Your task to perform on an android device: open device folders in google photos Image 0: 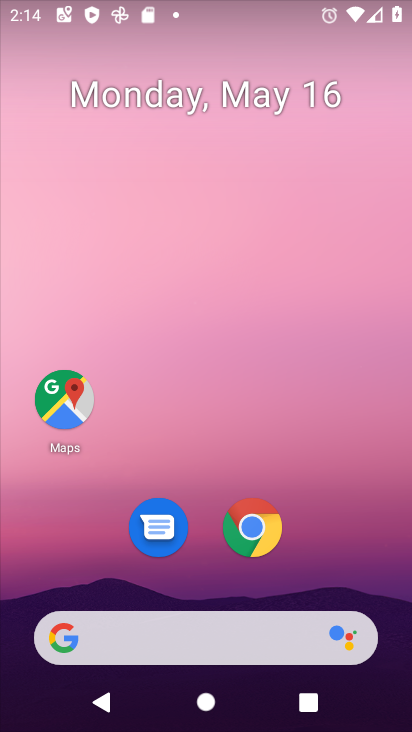
Step 0: drag from (383, 541) to (249, 71)
Your task to perform on an android device: open device folders in google photos Image 1: 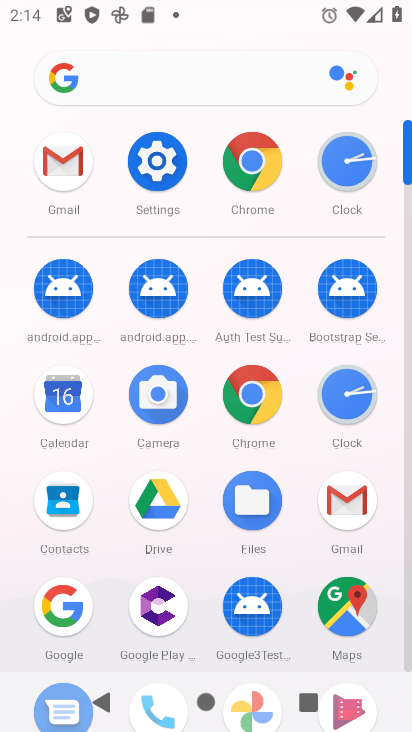
Step 1: click (404, 665)
Your task to perform on an android device: open device folders in google photos Image 2: 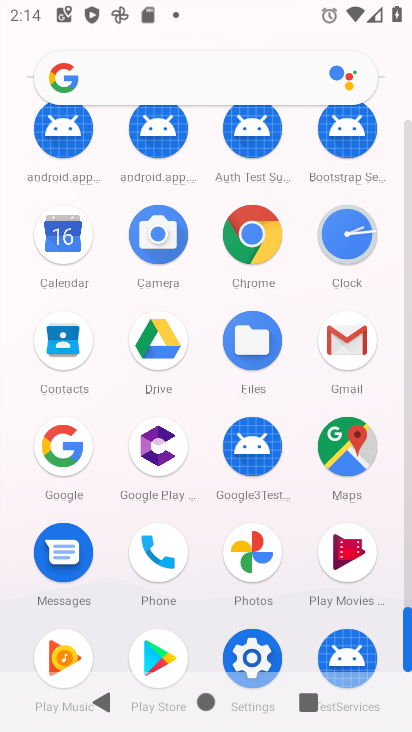
Step 2: click (259, 569)
Your task to perform on an android device: open device folders in google photos Image 3: 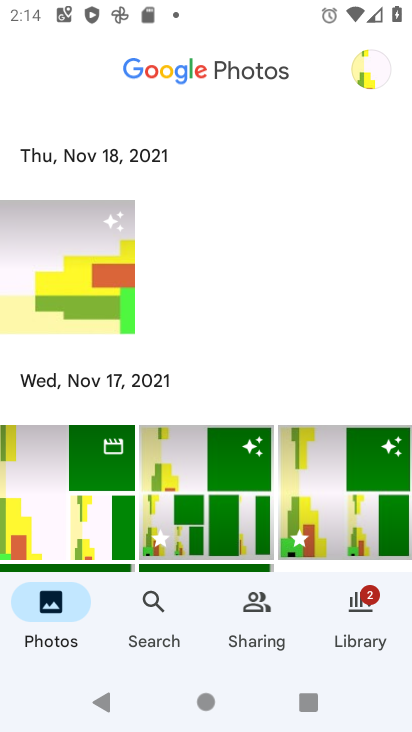
Step 3: click (387, 69)
Your task to perform on an android device: open device folders in google photos Image 4: 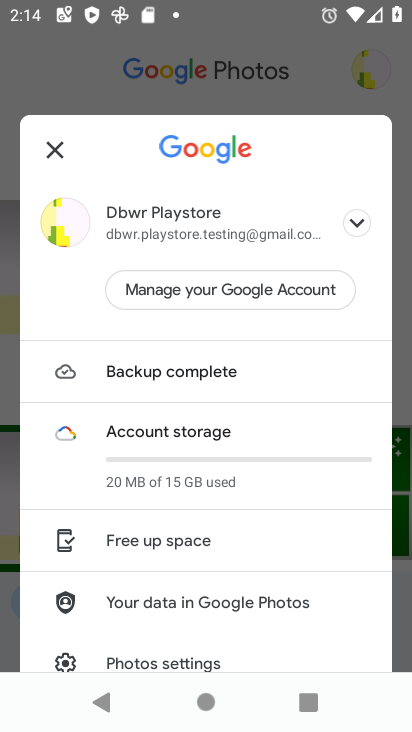
Step 4: click (61, 142)
Your task to perform on an android device: open device folders in google photos Image 5: 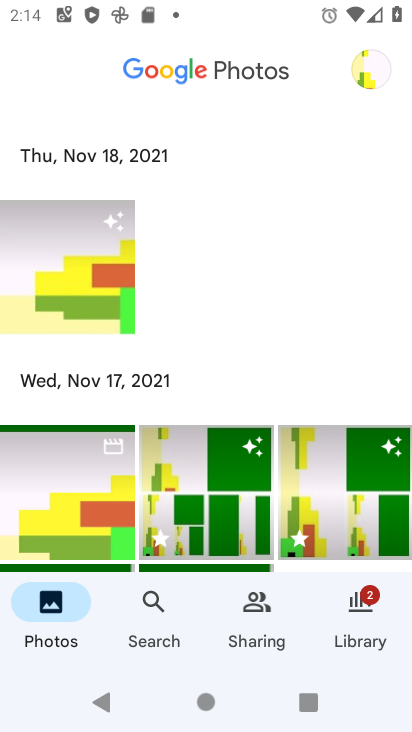
Step 5: click (378, 608)
Your task to perform on an android device: open device folders in google photos Image 6: 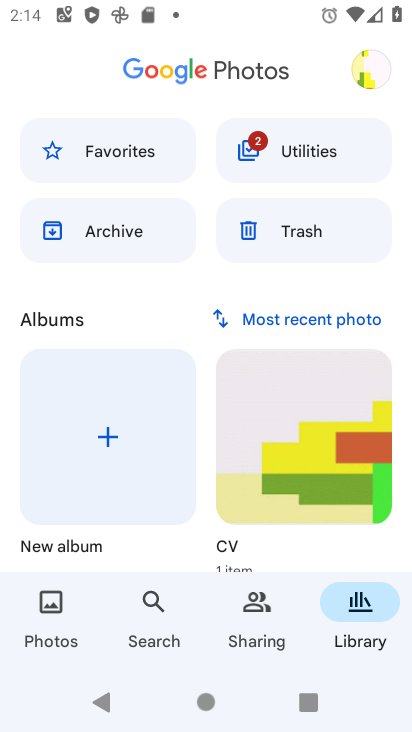
Step 6: click (368, 74)
Your task to perform on an android device: open device folders in google photos Image 7: 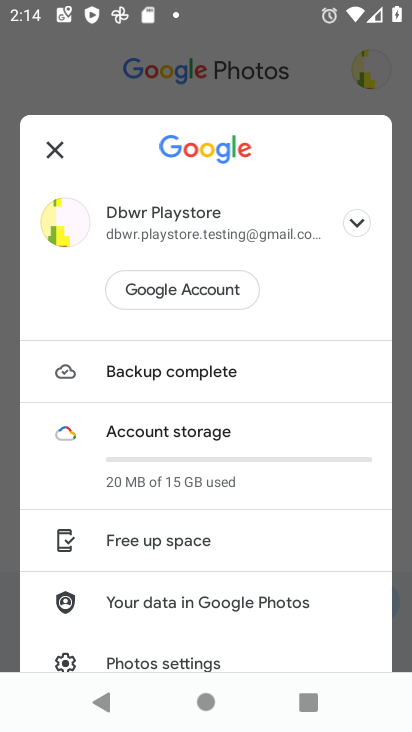
Step 7: click (224, 604)
Your task to perform on an android device: open device folders in google photos Image 8: 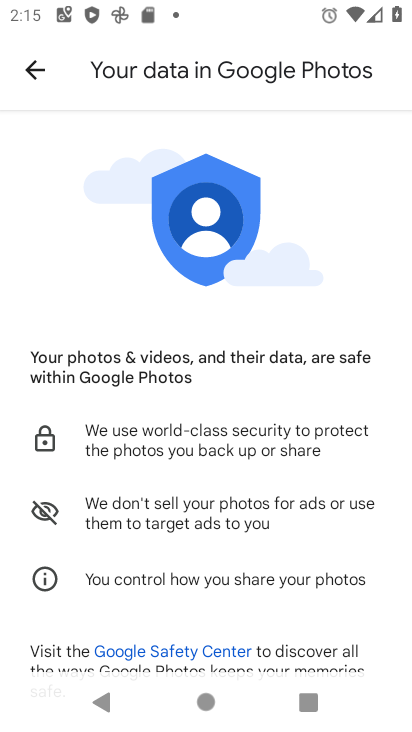
Step 8: click (35, 87)
Your task to perform on an android device: open device folders in google photos Image 9: 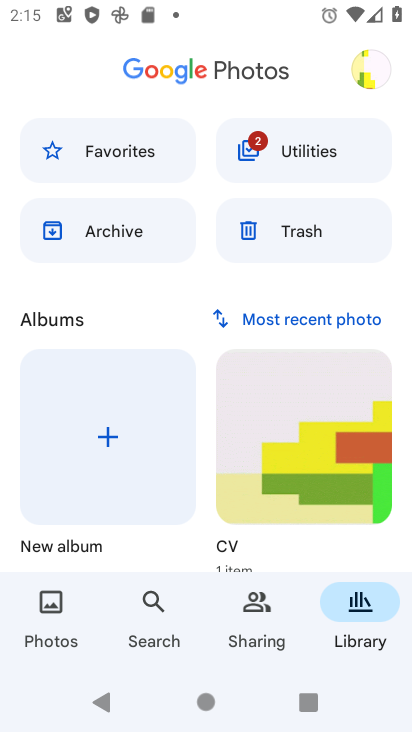
Step 9: task complete